Your task to perform on an android device: open app "Messages" Image 0: 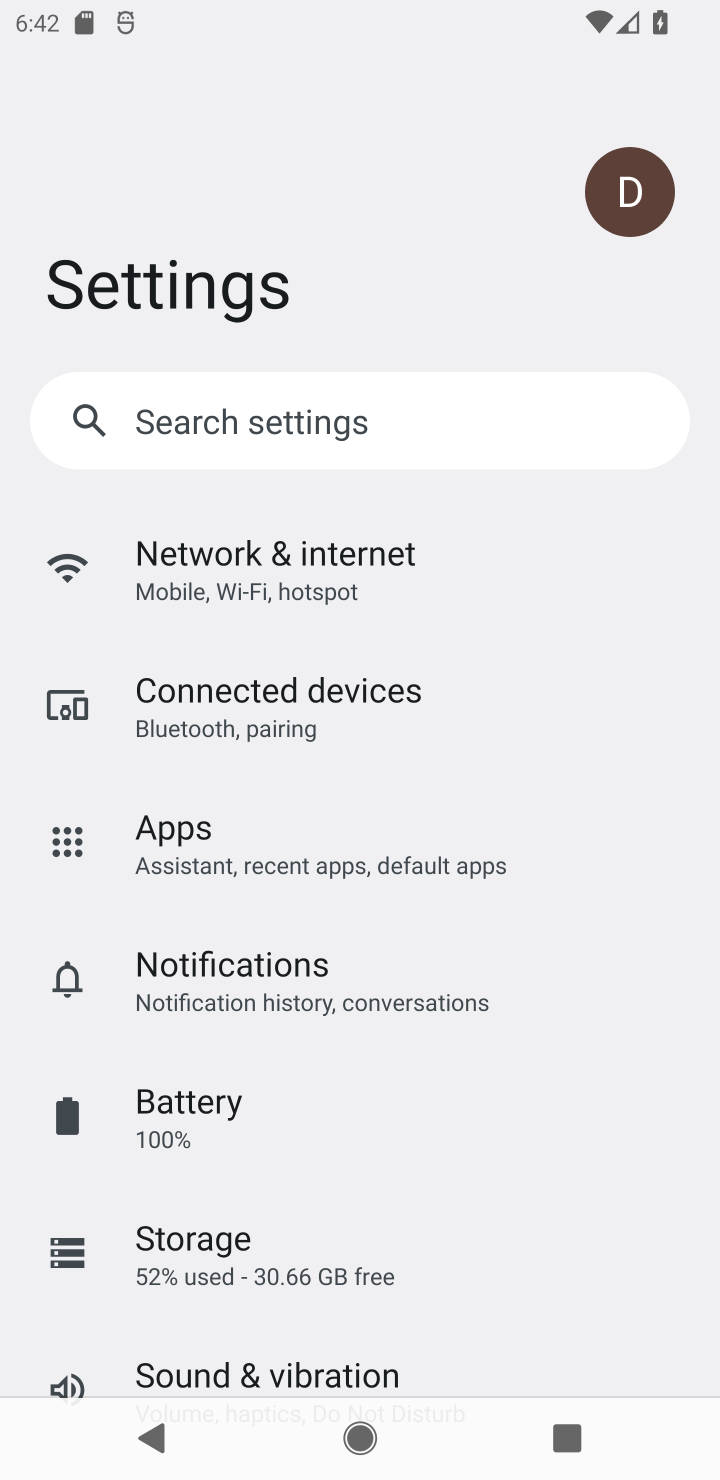
Step 0: press back button
Your task to perform on an android device: open app "Messages" Image 1: 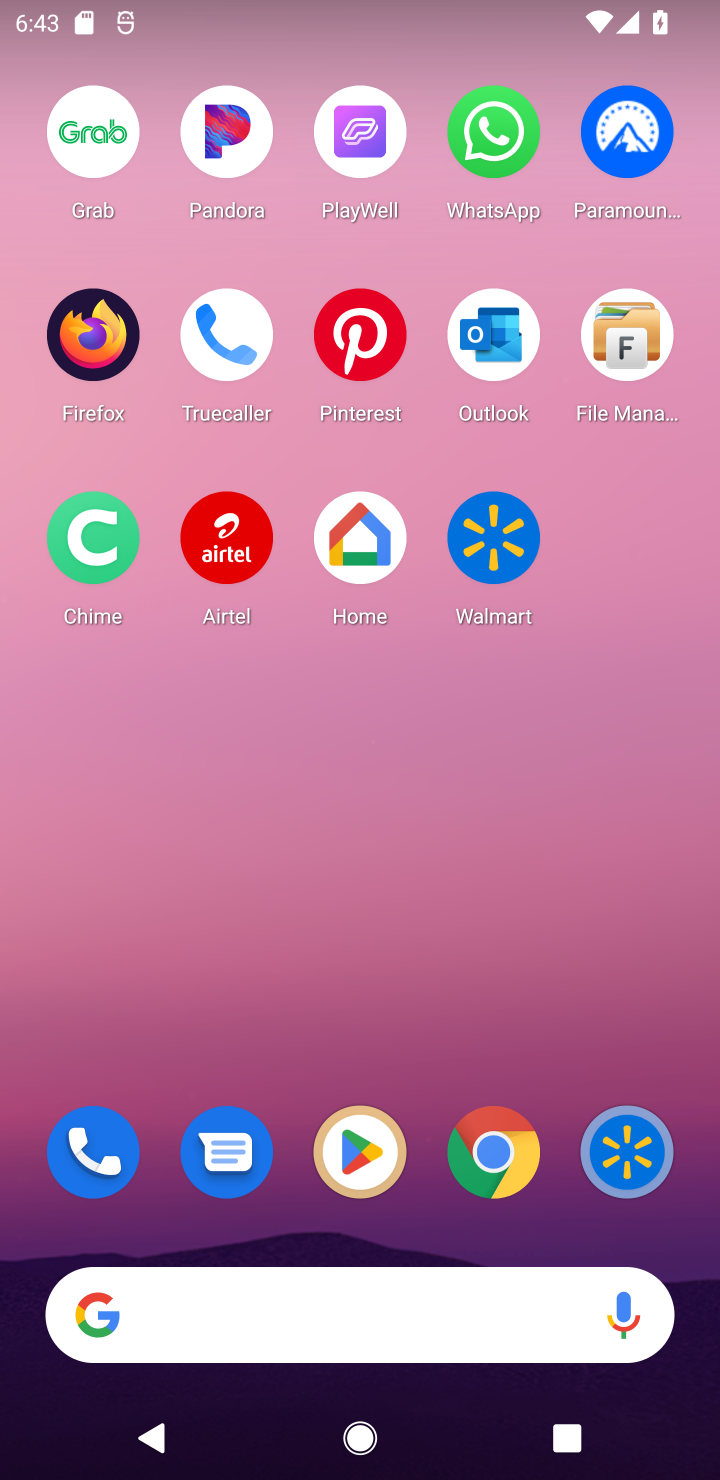
Step 1: click (214, 1147)
Your task to perform on an android device: open app "Messages" Image 2: 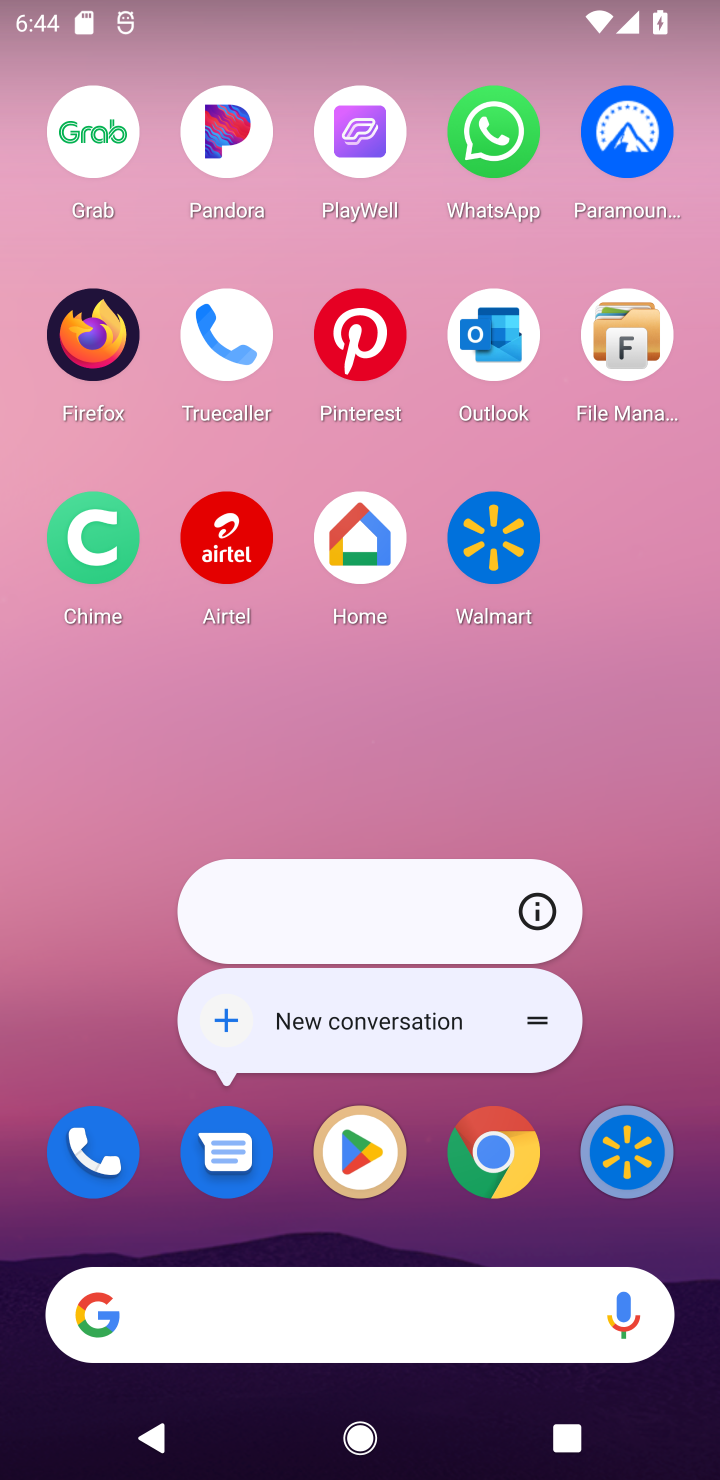
Step 2: click (241, 1151)
Your task to perform on an android device: open app "Messages" Image 3: 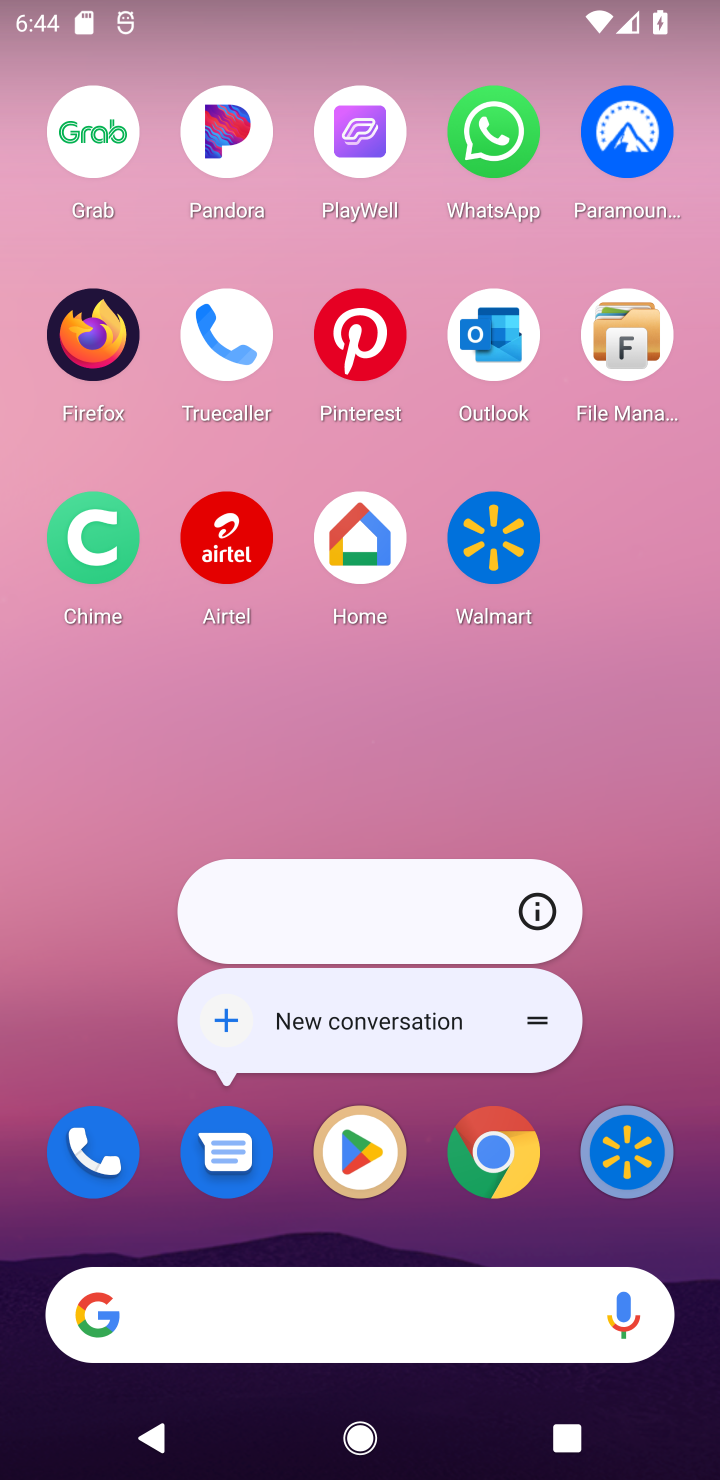
Step 3: click (255, 1141)
Your task to perform on an android device: open app "Messages" Image 4: 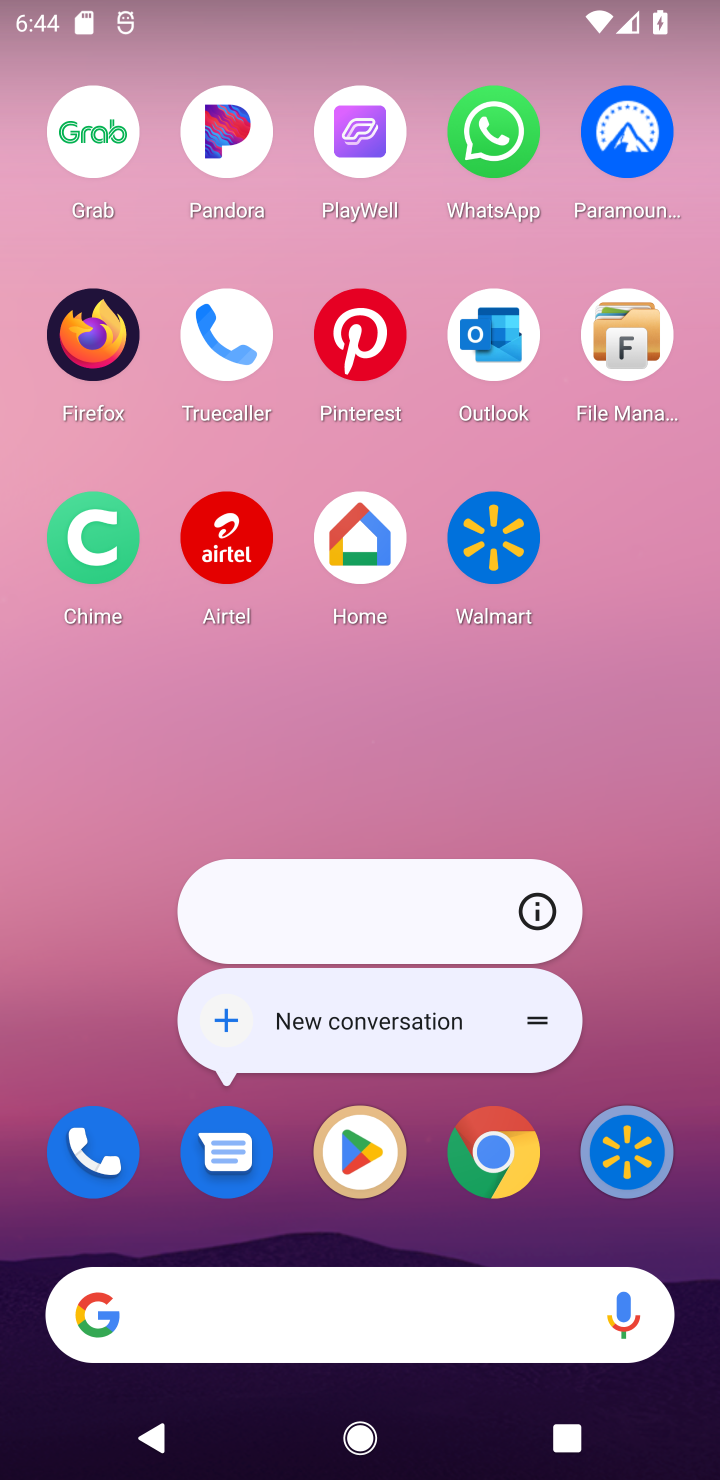
Step 4: click (211, 1147)
Your task to perform on an android device: open app "Messages" Image 5: 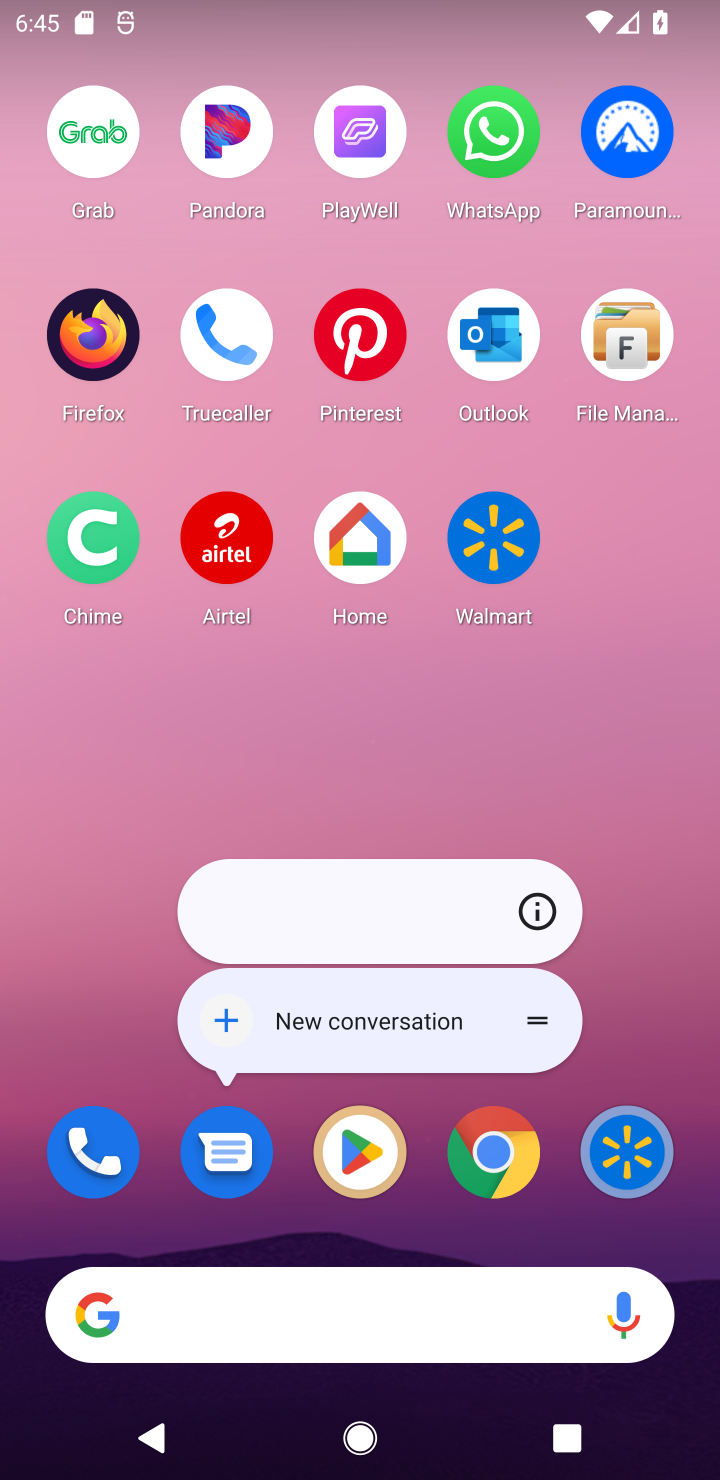
Step 5: click (224, 1159)
Your task to perform on an android device: open app "Messages" Image 6: 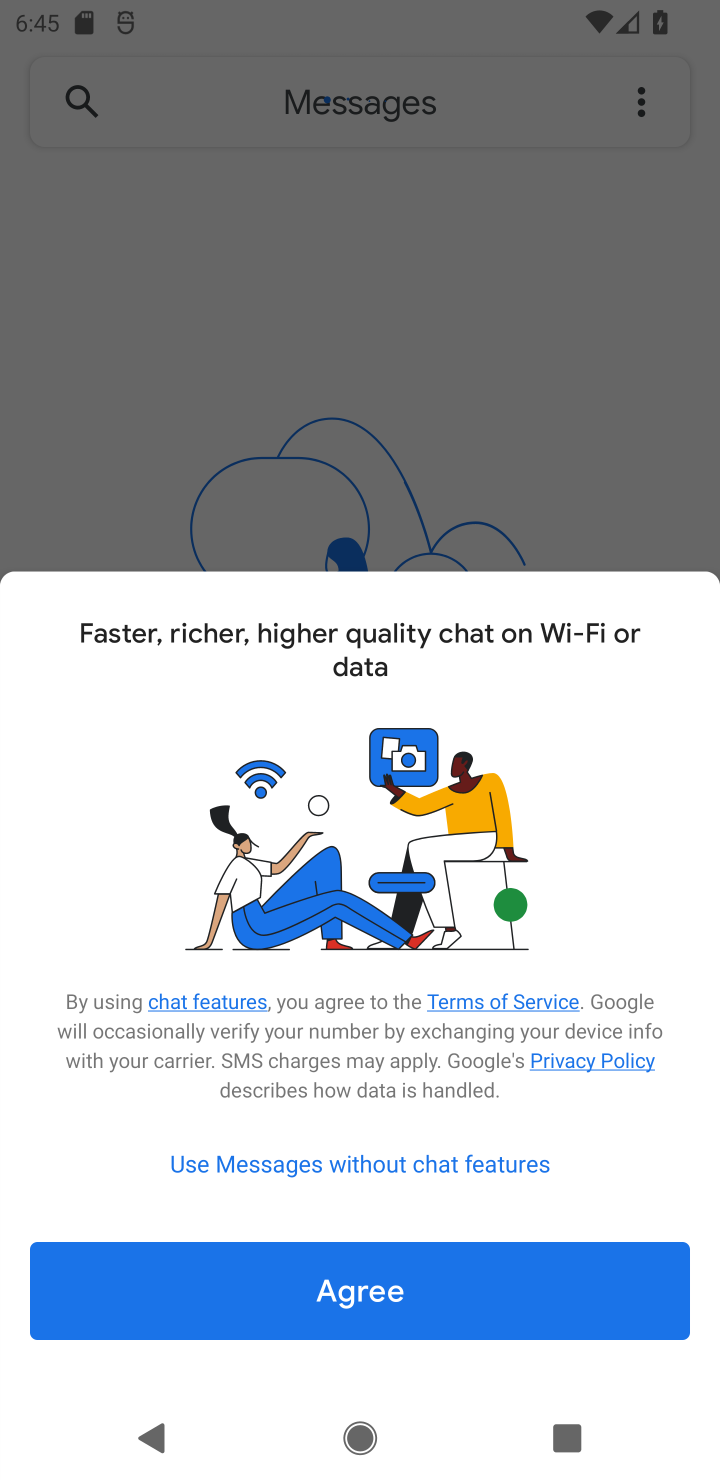
Step 6: task complete